Your task to perform on an android device: Open the calendar and show me this week's events? Image 0: 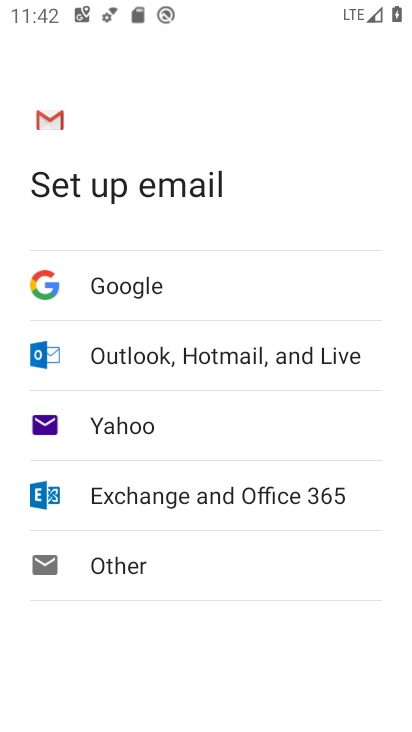
Step 0: press home button
Your task to perform on an android device: Open the calendar and show me this week's events? Image 1: 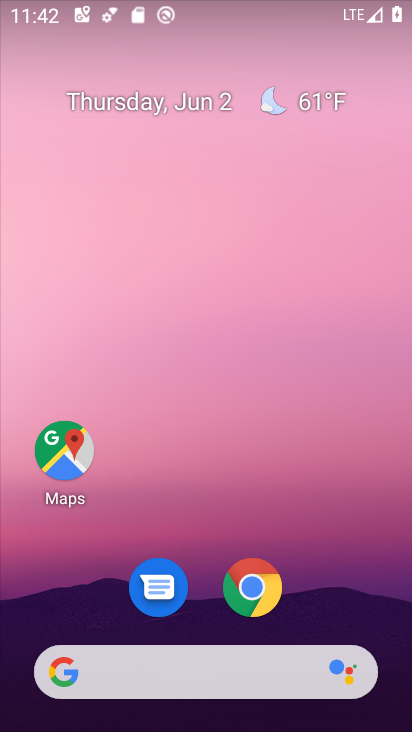
Step 1: drag from (217, 528) to (294, 9)
Your task to perform on an android device: Open the calendar and show me this week's events? Image 2: 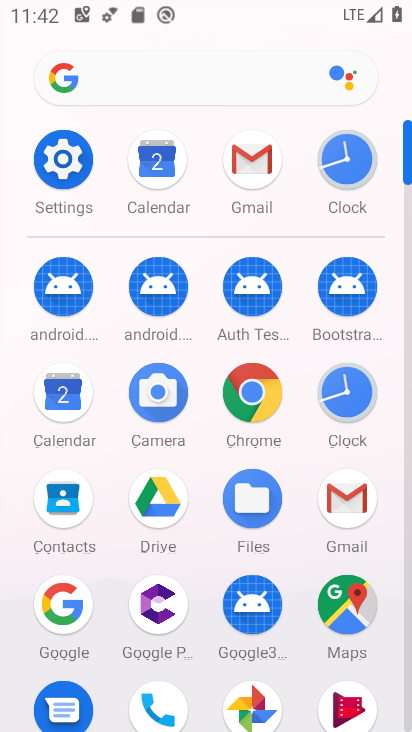
Step 2: click (155, 151)
Your task to perform on an android device: Open the calendar and show me this week's events? Image 3: 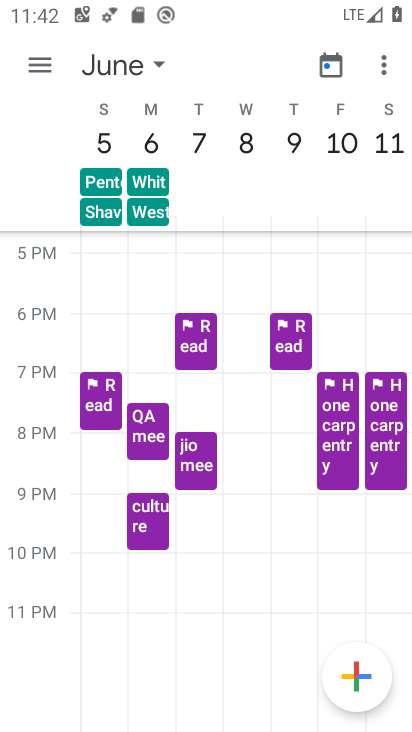
Step 3: task complete